Your task to perform on an android device: open a bookmark in the chrome app Image 0: 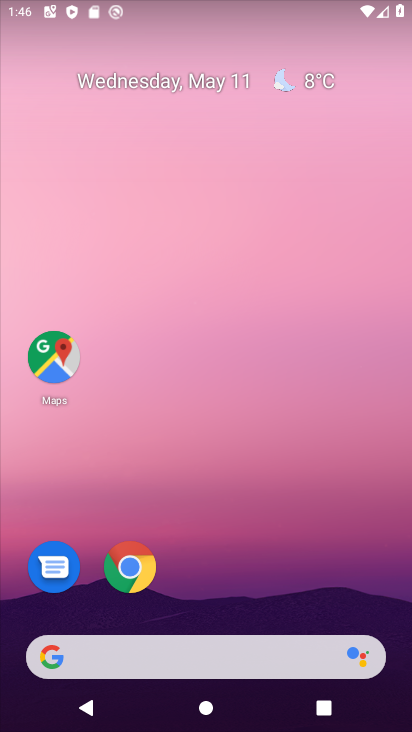
Step 0: click (138, 567)
Your task to perform on an android device: open a bookmark in the chrome app Image 1: 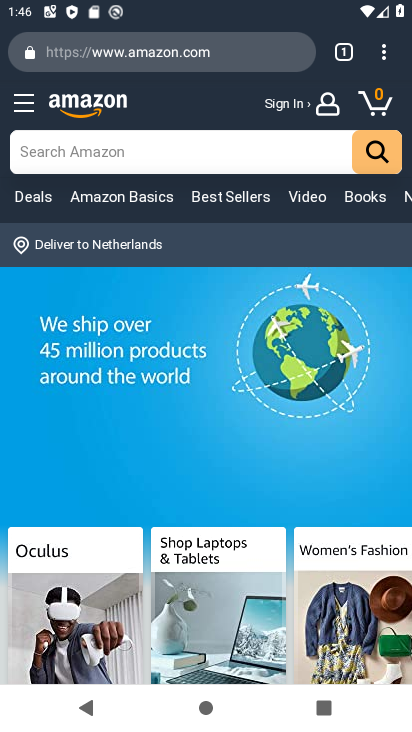
Step 1: click (385, 49)
Your task to perform on an android device: open a bookmark in the chrome app Image 2: 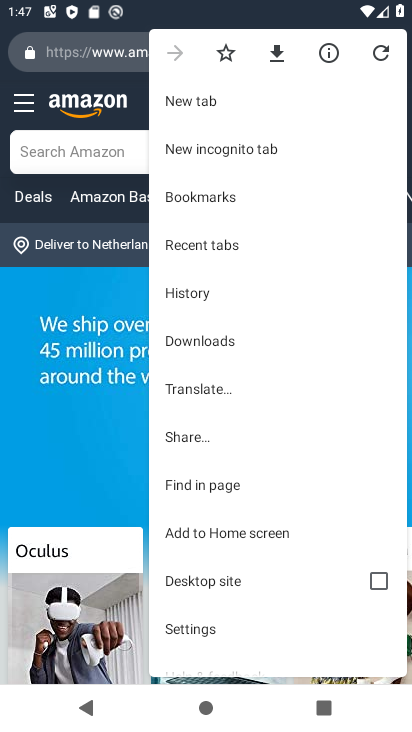
Step 2: click (197, 202)
Your task to perform on an android device: open a bookmark in the chrome app Image 3: 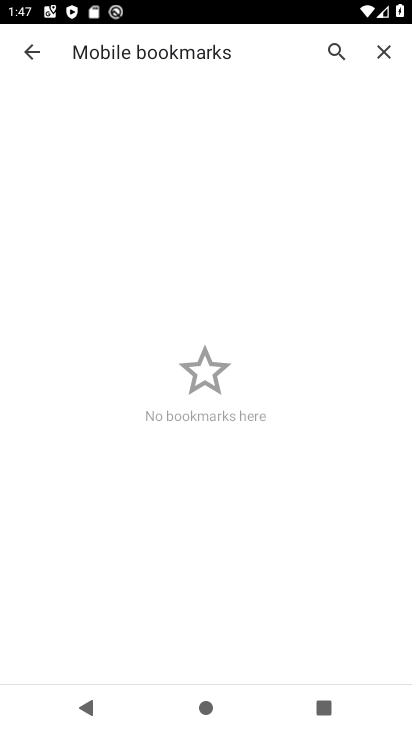
Step 3: task complete